Your task to perform on an android device: install app "Pandora - Music & Podcasts" Image 0: 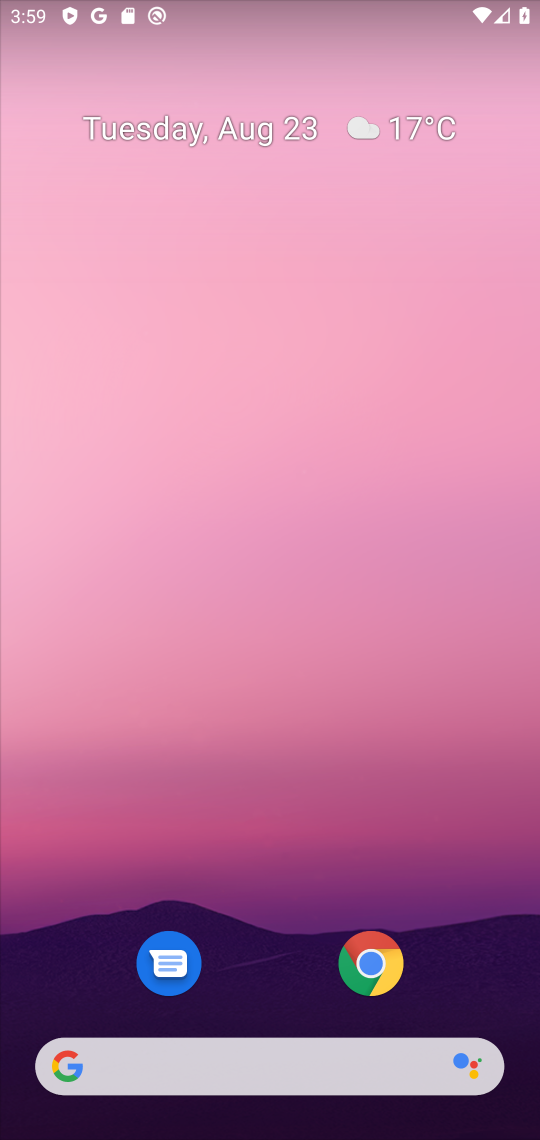
Step 0: press home button
Your task to perform on an android device: install app "Pandora - Music & Podcasts" Image 1: 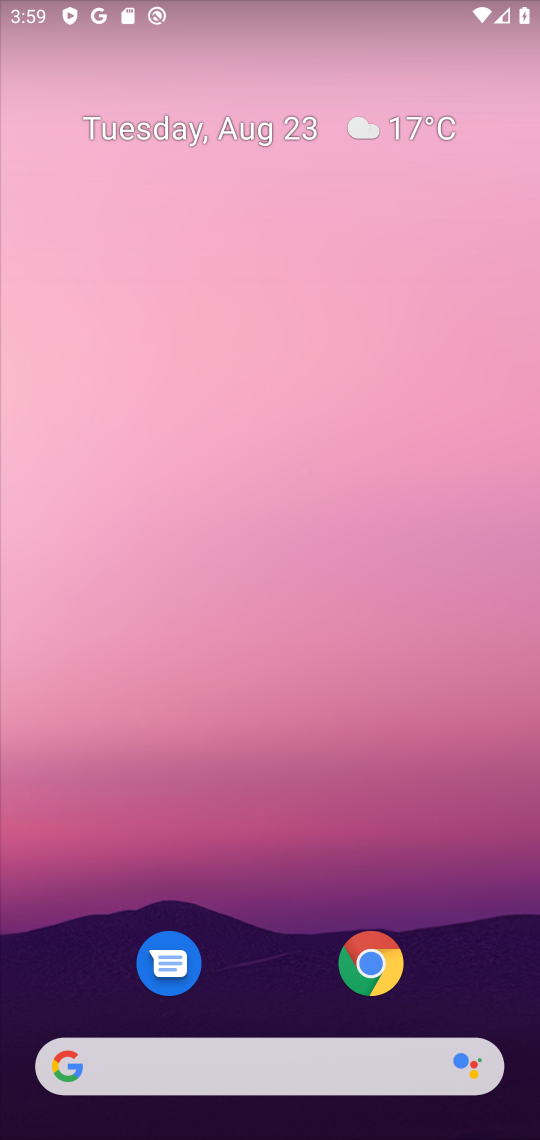
Step 1: press home button
Your task to perform on an android device: install app "Pandora - Music & Podcasts" Image 2: 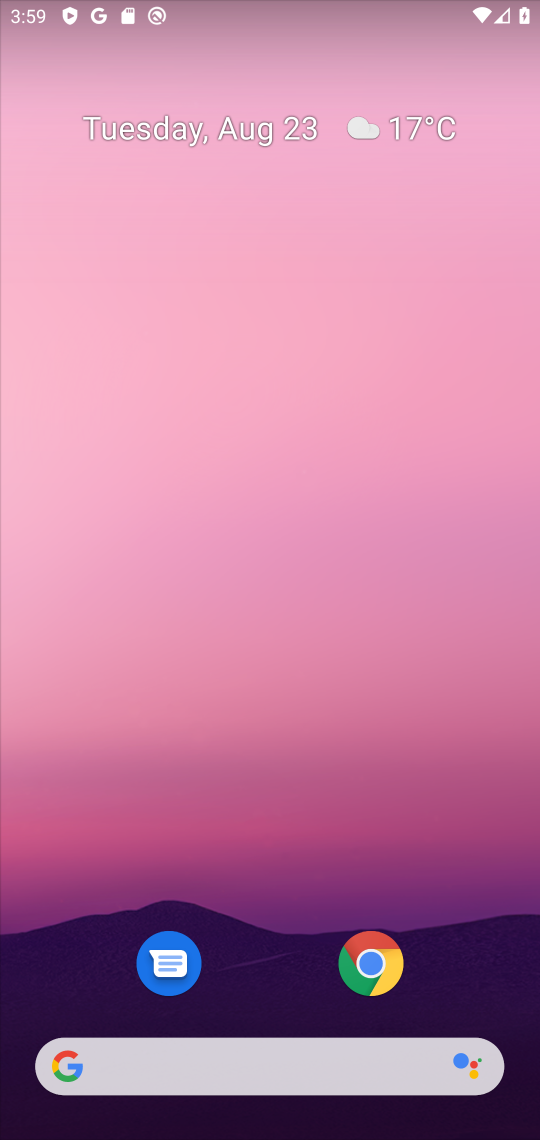
Step 2: drag from (273, 1003) to (320, 72)
Your task to perform on an android device: install app "Pandora - Music & Podcasts" Image 3: 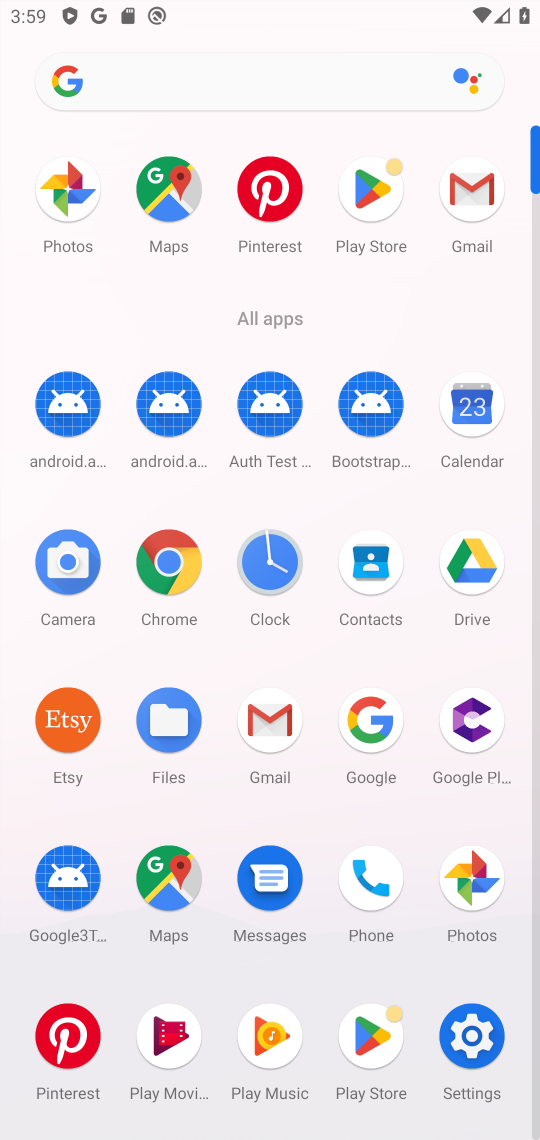
Step 3: click (366, 179)
Your task to perform on an android device: install app "Pandora - Music & Podcasts" Image 4: 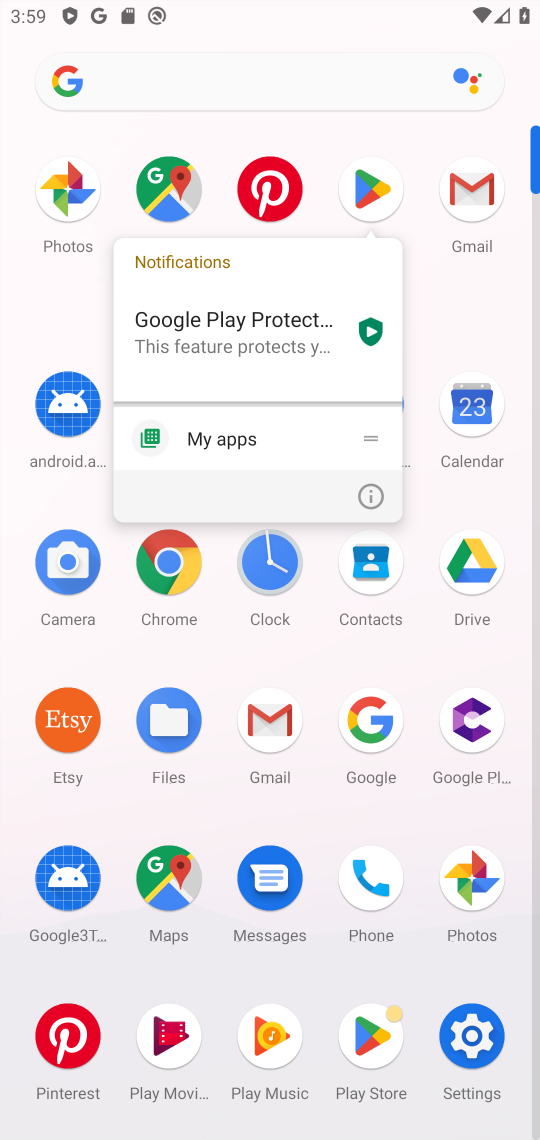
Step 4: click (368, 184)
Your task to perform on an android device: install app "Pandora - Music & Podcasts" Image 5: 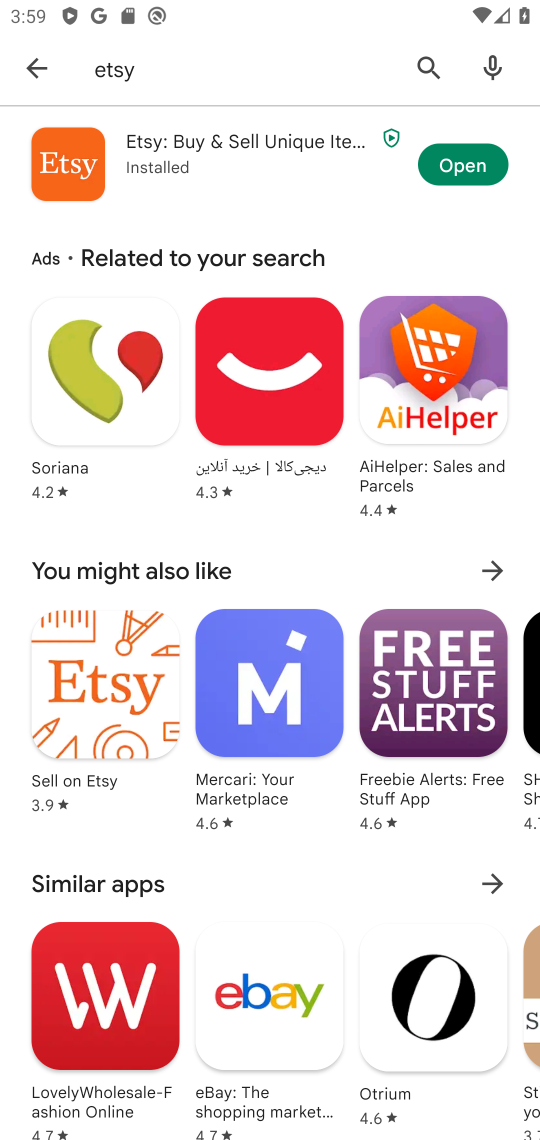
Step 5: click (421, 67)
Your task to perform on an android device: install app "Pandora - Music & Podcasts" Image 6: 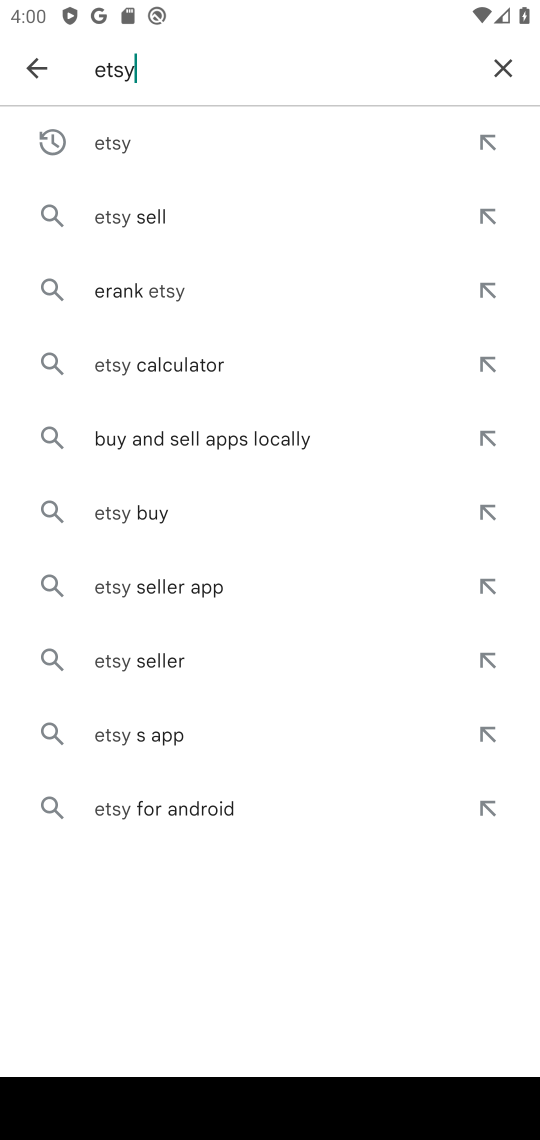
Step 6: click (497, 68)
Your task to perform on an android device: install app "Pandora - Music & Podcasts" Image 7: 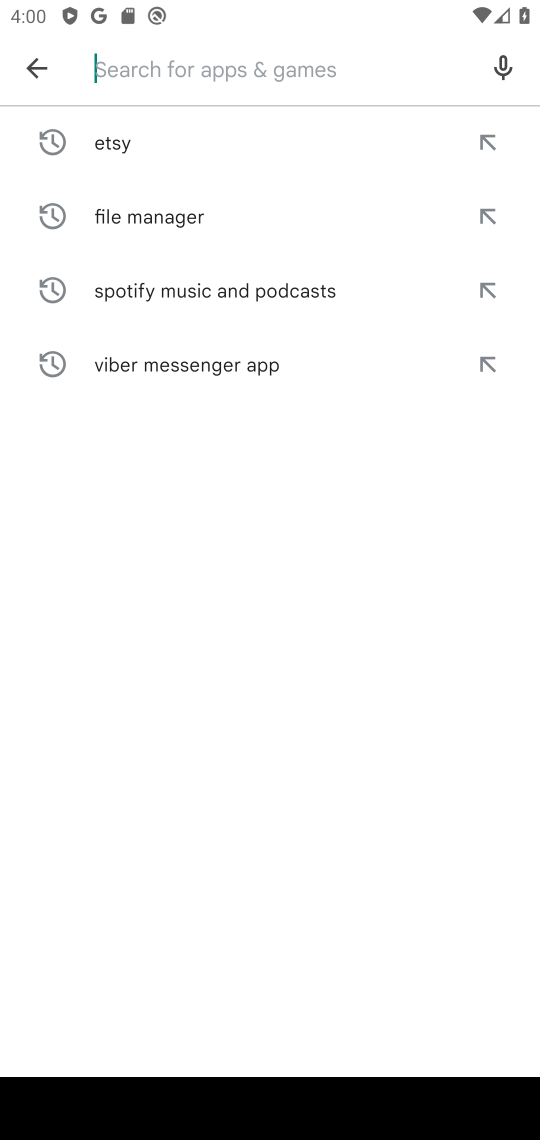
Step 7: type "Pandora - Music & Podcasts"
Your task to perform on an android device: install app "Pandora - Music & Podcasts" Image 8: 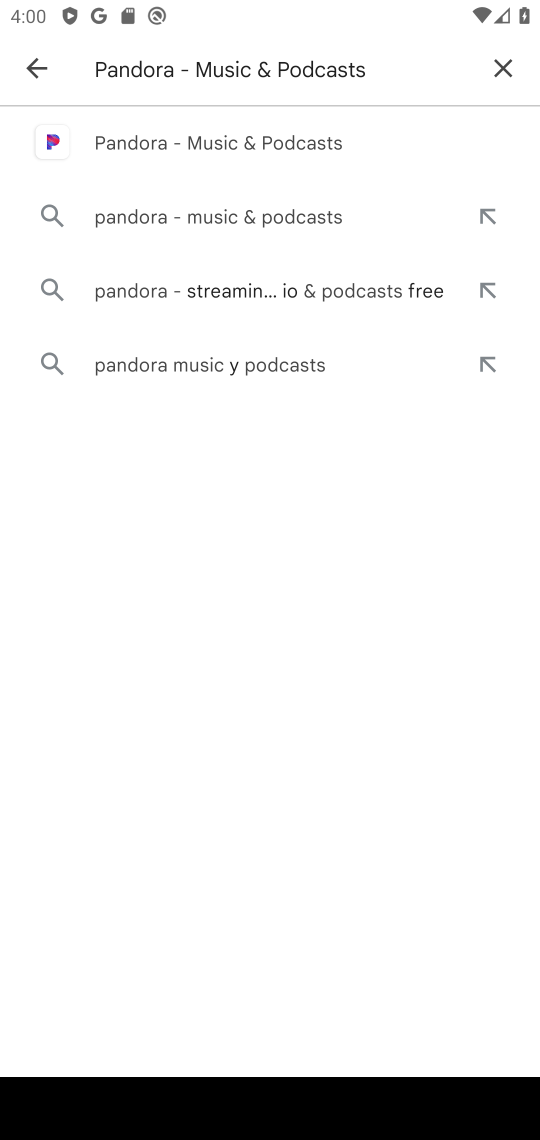
Step 8: click (209, 141)
Your task to perform on an android device: install app "Pandora - Music & Podcasts" Image 9: 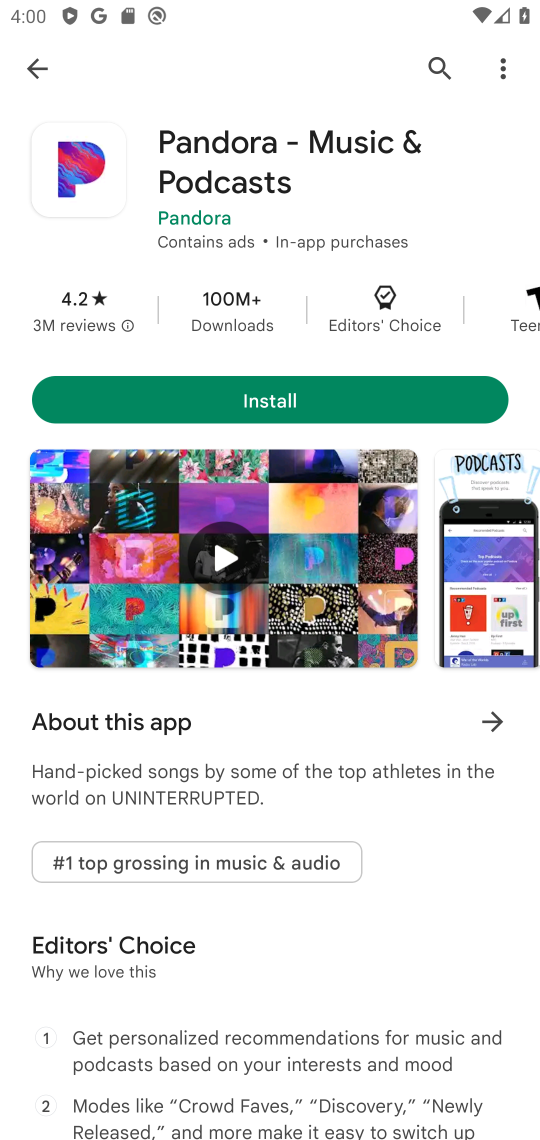
Step 9: click (264, 395)
Your task to perform on an android device: install app "Pandora - Music & Podcasts" Image 10: 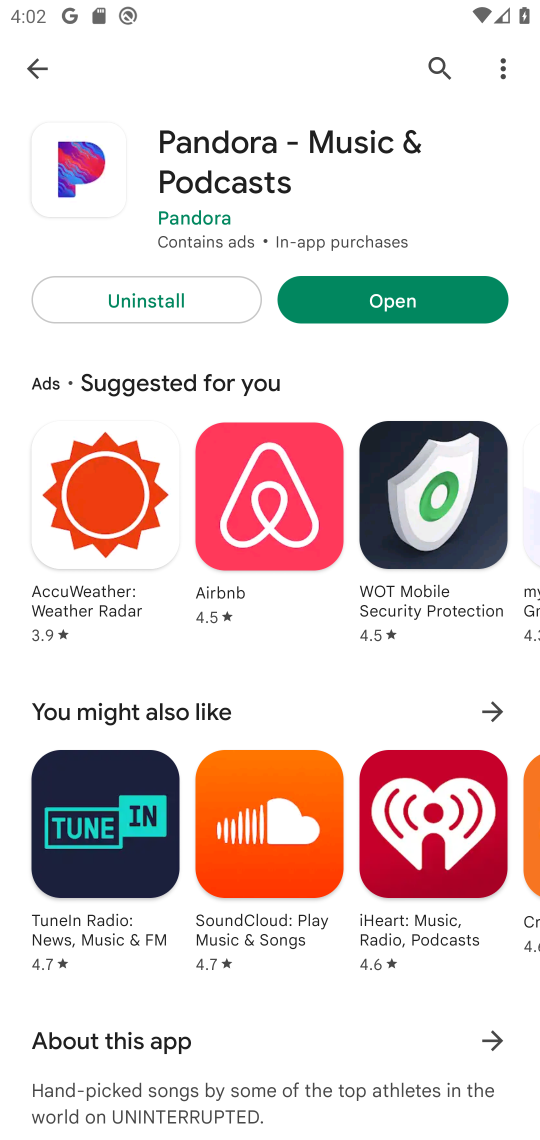
Step 10: click (423, 287)
Your task to perform on an android device: install app "Pandora - Music & Podcasts" Image 11: 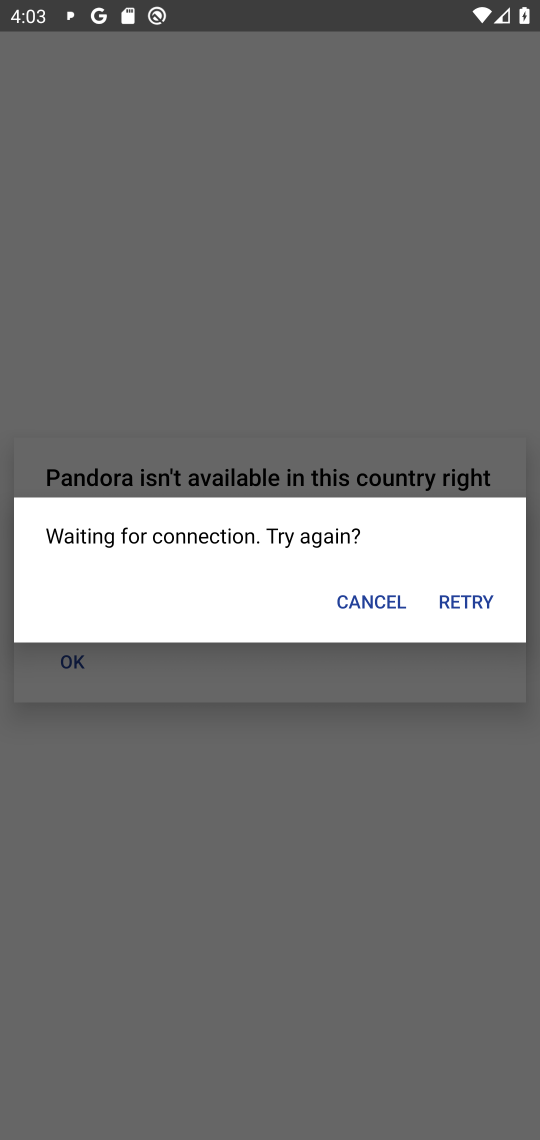
Step 11: task complete